Your task to perform on an android device: toggle wifi Image 0: 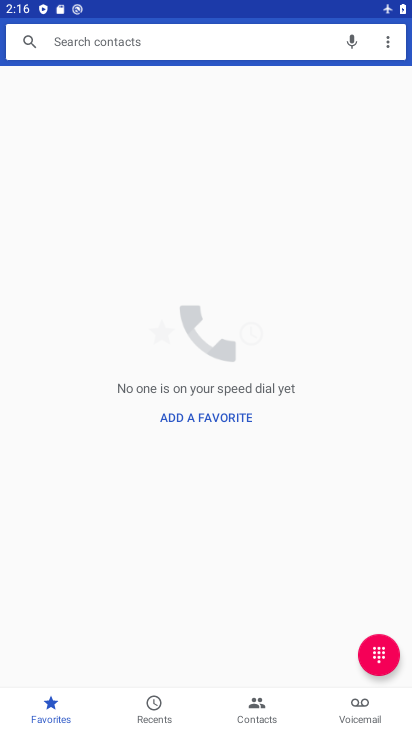
Step 0: press home button
Your task to perform on an android device: toggle wifi Image 1: 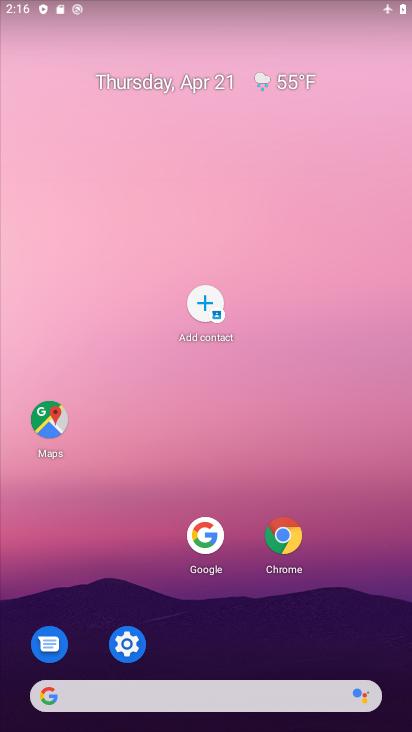
Step 1: drag from (364, 637) to (130, 116)
Your task to perform on an android device: toggle wifi Image 2: 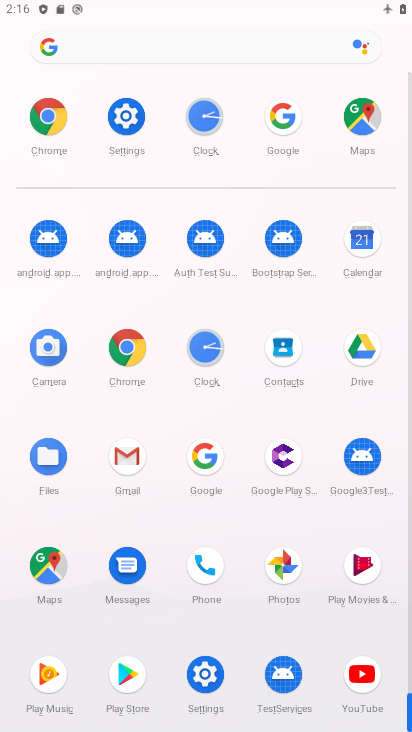
Step 2: click (362, 113)
Your task to perform on an android device: toggle wifi Image 3: 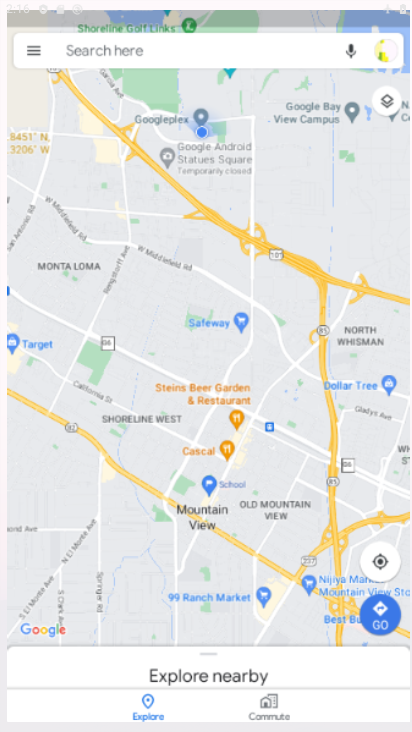
Step 3: click (362, 113)
Your task to perform on an android device: toggle wifi Image 4: 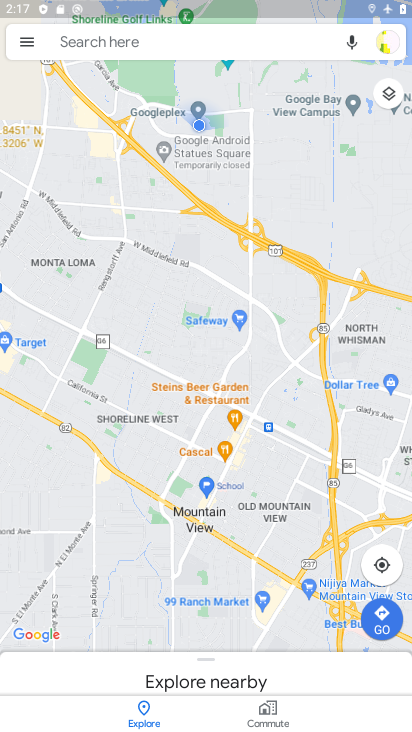
Step 4: press home button
Your task to perform on an android device: toggle wifi Image 5: 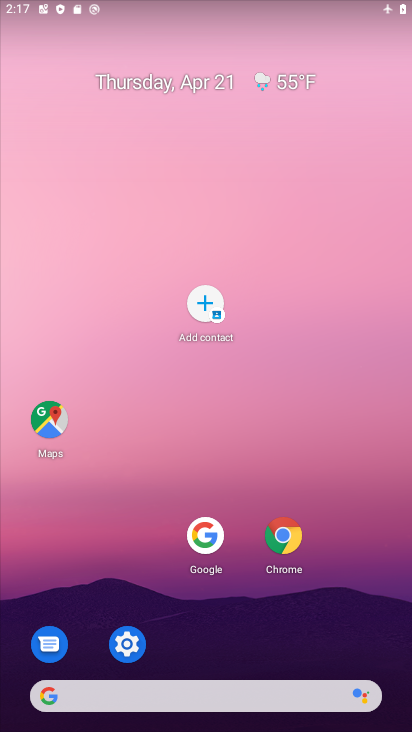
Step 5: drag from (274, 570) to (159, 98)
Your task to perform on an android device: toggle wifi Image 6: 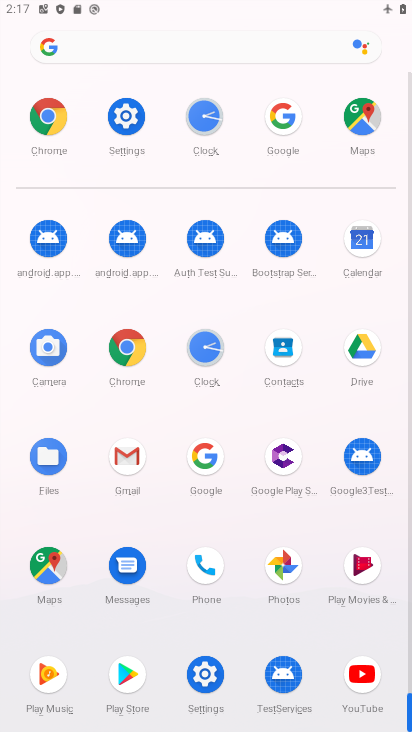
Step 6: click (121, 120)
Your task to perform on an android device: toggle wifi Image 7: 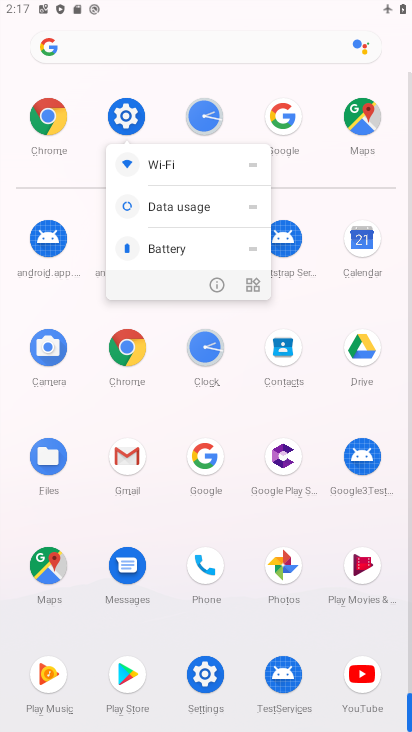
Step 7: click (124, 167)
Your task to perform on an android device: toggle wifi Image 8: 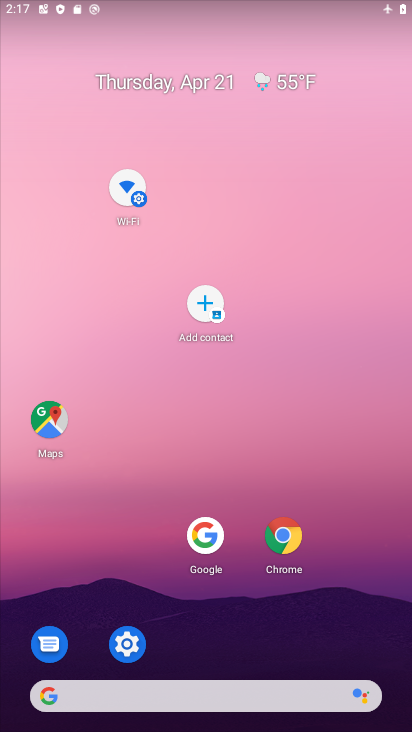
Step 8: drag from (305, 661) to (294, 212)
Your task to perform on an android device: toggle wifi Image 9: 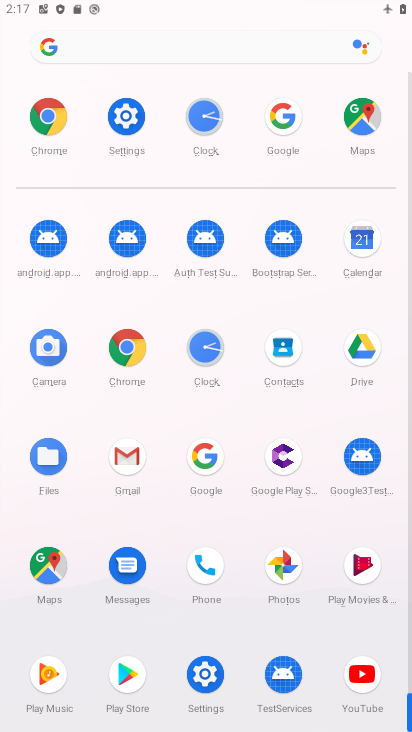
Step 9: click (118, 113)
Your task to perform on an android device: toggle wifi Image 10: 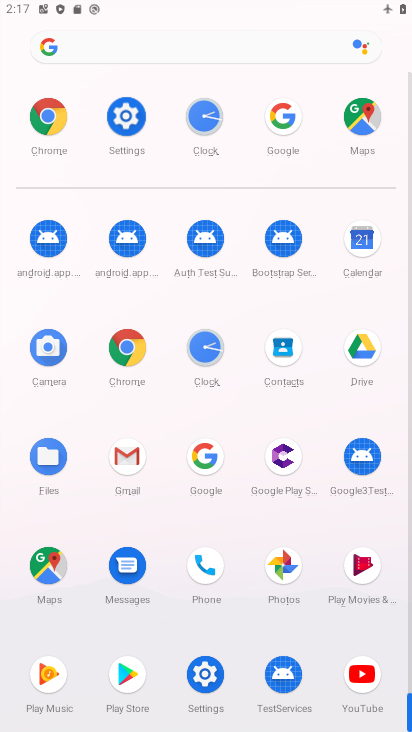
Step 10: click (118, 113)
Your task to perform on an android device: toggle wifi Image 11: 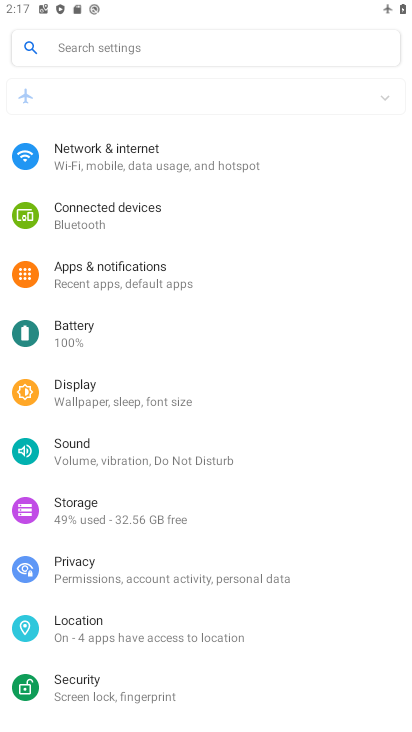
Step 11: click (119, 112)
Your task to perform on an android device: toggle wifi Image 12: 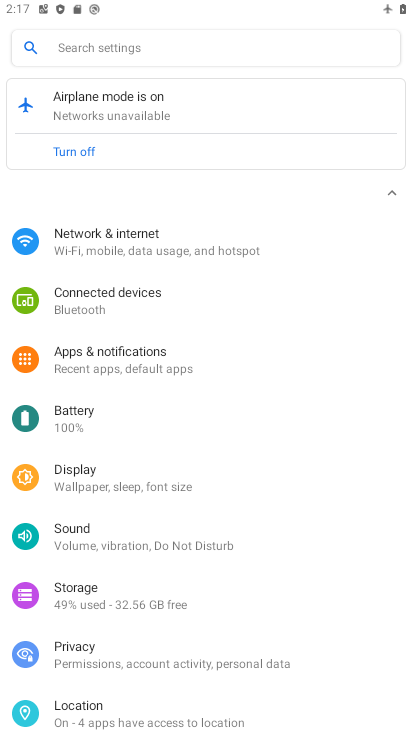
Step 12: click (113, 243)
Your task to perform on an android device: toggle wifi Image 13: 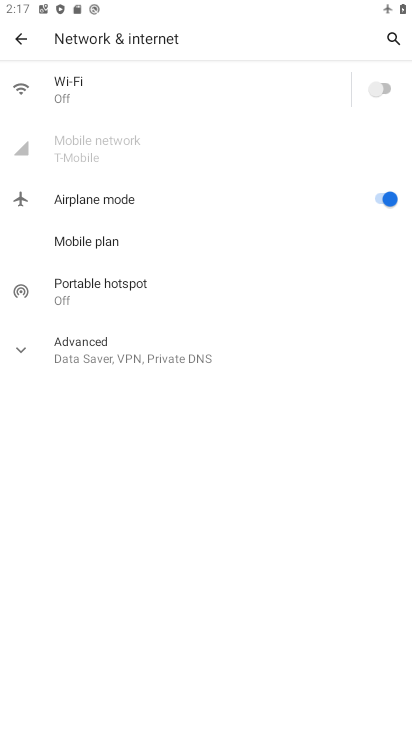
Step 13: click (376, 85)
Your task to perform on an android device: toggle wifi Image 14: 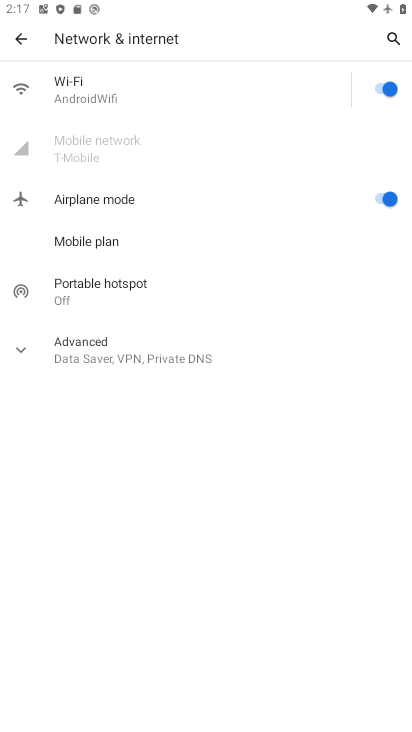
Step 14: task complete